Your task to perform on an android device: Open Google Chrome and open the bookmarks view Image 0: 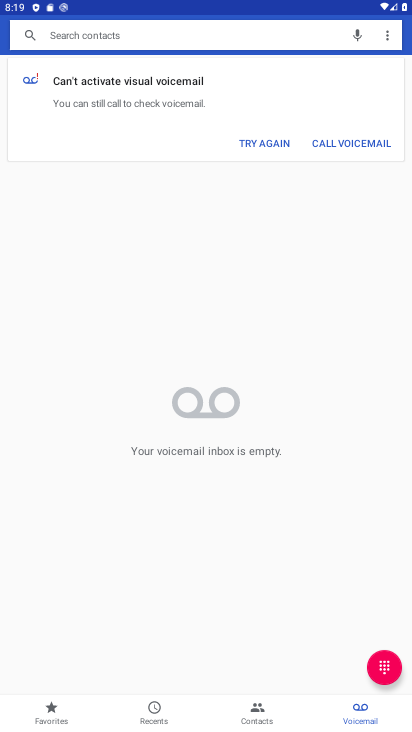
Step 0: press home button
Your task to perform on an android device: Open Google Chrome and open the bookmarks view Image 1: 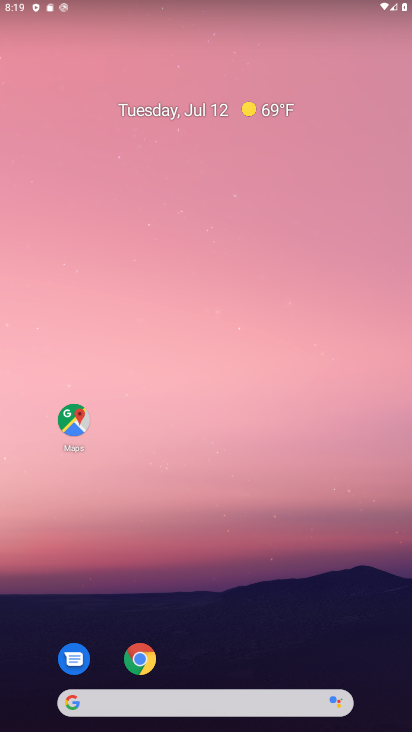
Step 1: drag from (227, 717) to (213, 119)
Your task to perform on an android device: Open Google Chrome and open the bookmarks view Image 2: 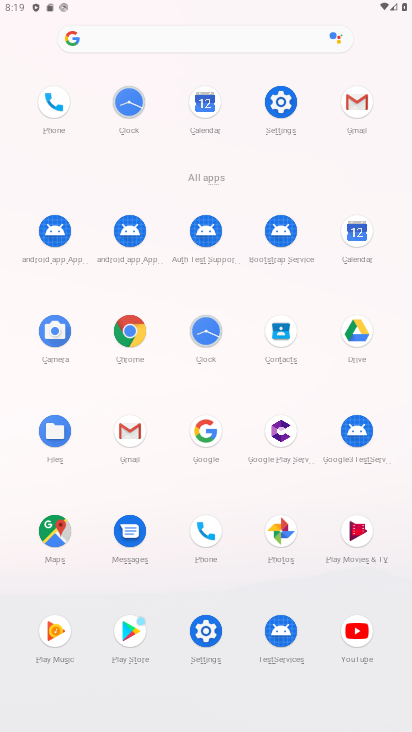
Step 2: click (128, 328)
Your task to perform on an android device: Open Google Chrome and open the bookmarks view Image 3: 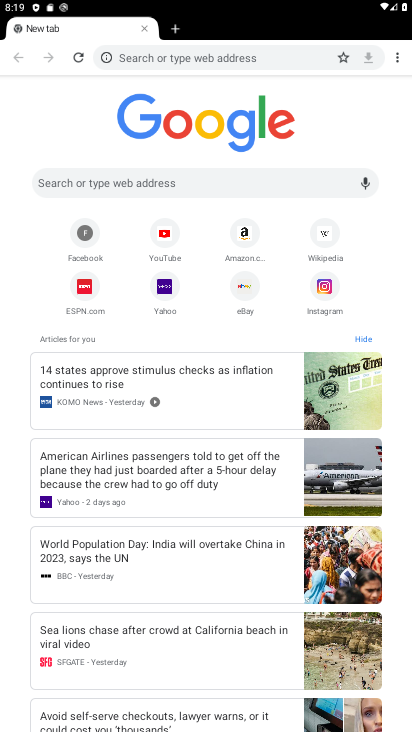
Step 3: click (394, 64)
Your task to perform on an android device: Open Google Chrome and open the bookmarks view Image 4: 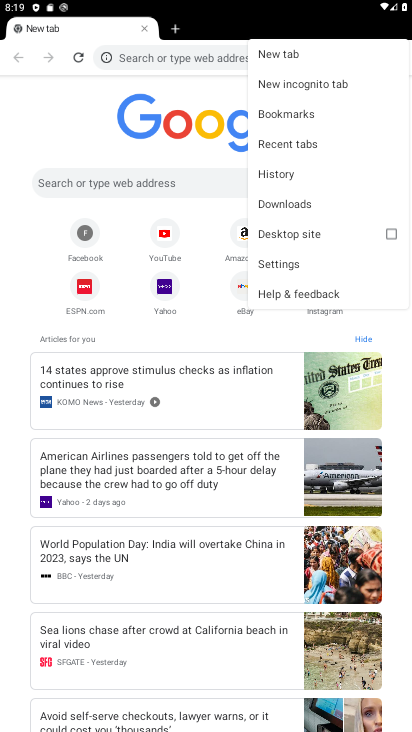
Step 4: click (296, 112)
Your task to perform on an android device: Open Google Chrome and open the bookmarks view Image 5: 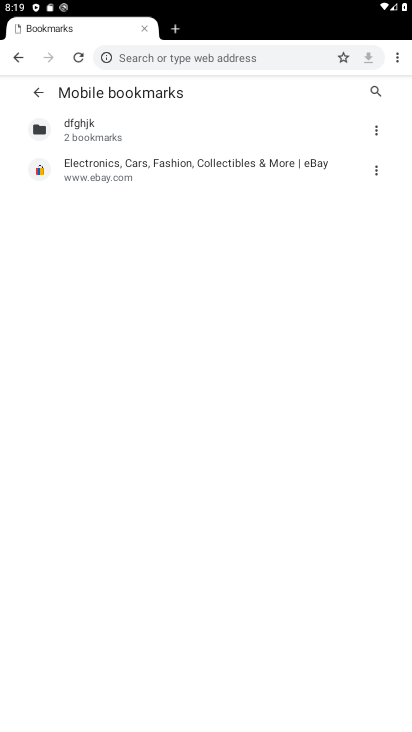
Step 5: task complete